Your task to perform on an android device: Search for Italian restaurants on Maps Image 0: 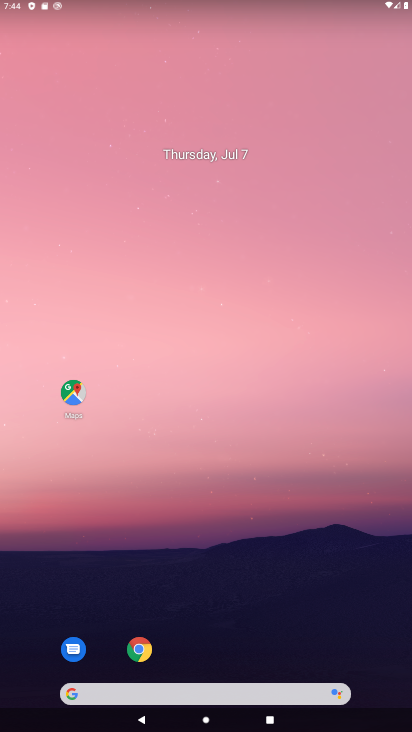
Step 0: click (74, 392)
Your task to perform on an android device: Search for Italian restaurants on Maps Image 1: 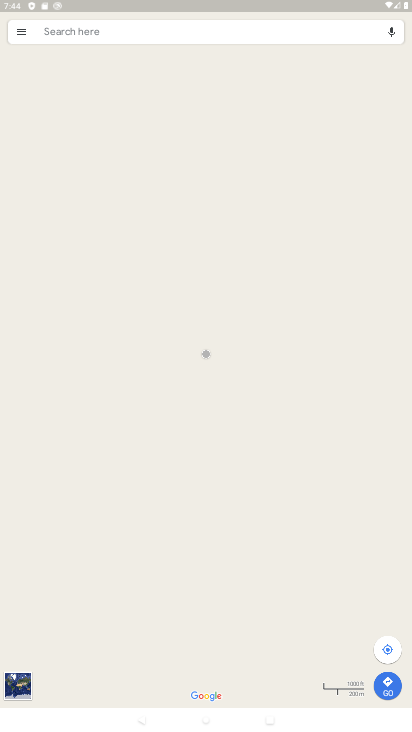
Step 1: click (170, 32)
Your task to perform on an android device: Search for Italian restaurants on Maps Image 2: 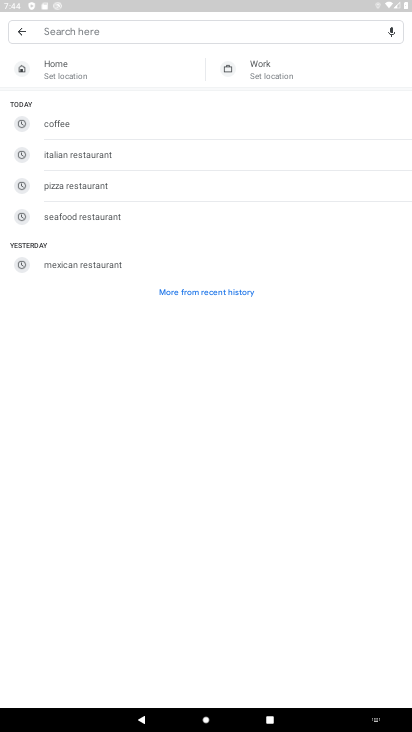
Step 2: type "italian restaurants"
Your task to perform on an android device: Search for Italian restaurants on Maps Image 3: 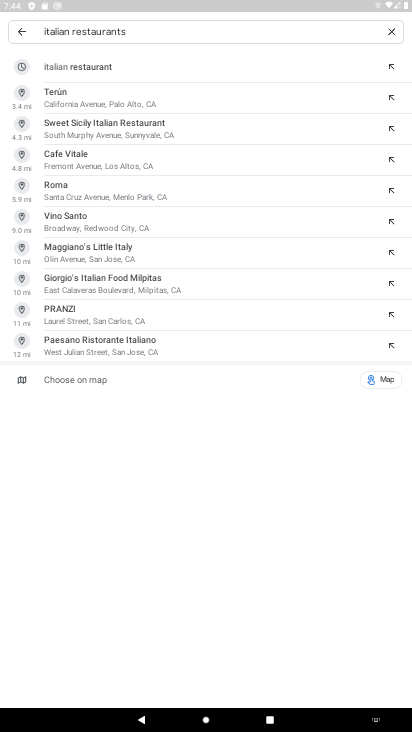
Step 3: click (145, 68)
Your task to perform on an android device: Search for Italian restaurants on Maps Image 4: 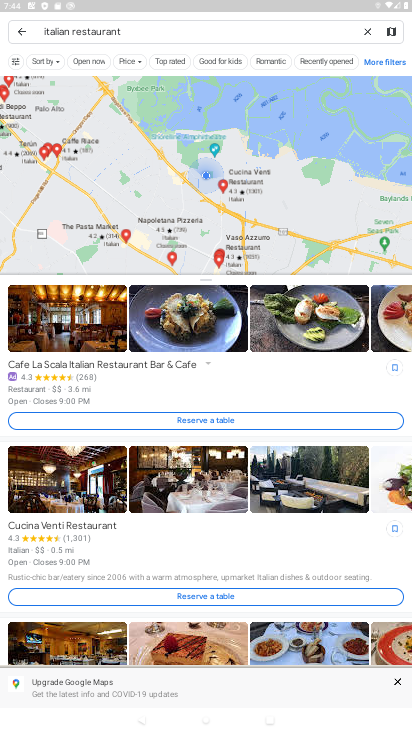
Step 4: task complete